Your task to perform on an android device: Do I have any events this weekend? Image 0: 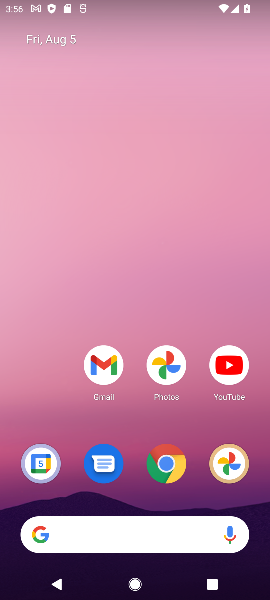
Step 0: drag from (116, 497) to (149, 203)
Your task to perform on an android device: Do I have any events this weekend? Image 1: 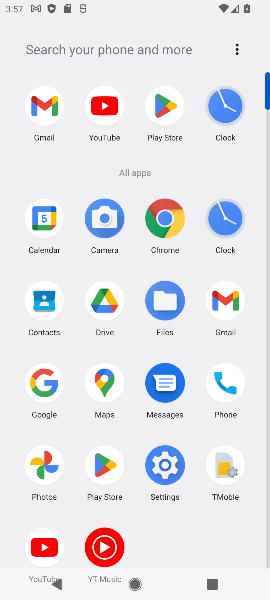
Step 1: click (51, 222)
Your task to perform on an android device: Do I have any events this weekend? Image 2: 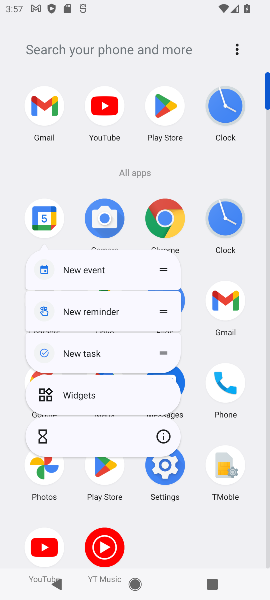
Step 2: click (162, 433)
Your task to perform on an android device: Do I have any events this weekend? Image 3: 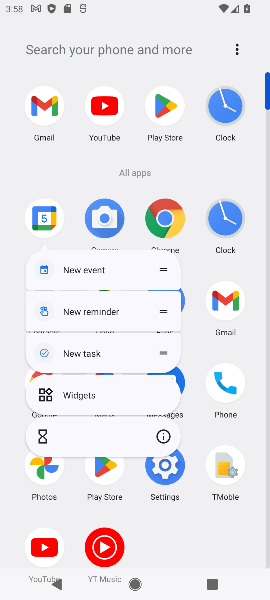
Step 3: click (162, 445)
Your task to perform on an android device: Do I have any events this weekend? Image 4: 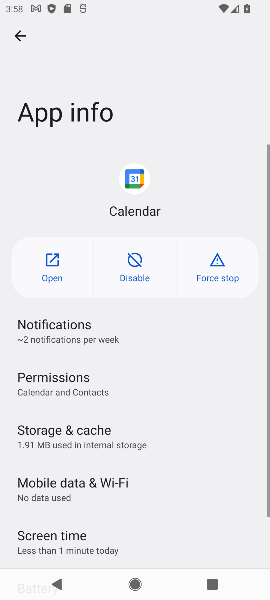
Step 4: click (40, 264)
Your task to perform on an android device: Do I have any events this weekend? Image 5: 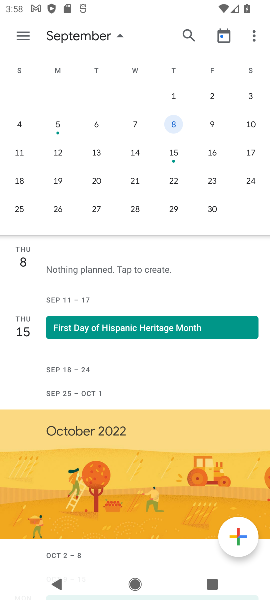
Step 5: task complete